Your task to perform on an android device: see sites visited before in the chrome app Image 0: 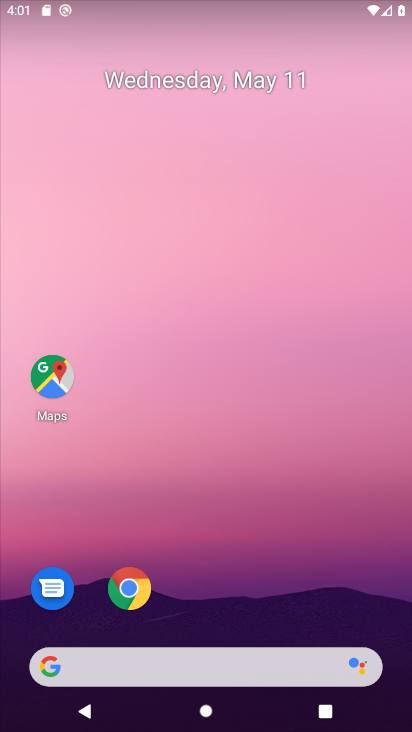
Step 0: drag from (202, 446) to (158, 166)
Your task to perform on an android device: see sites visited before in the chrome app Image 1: 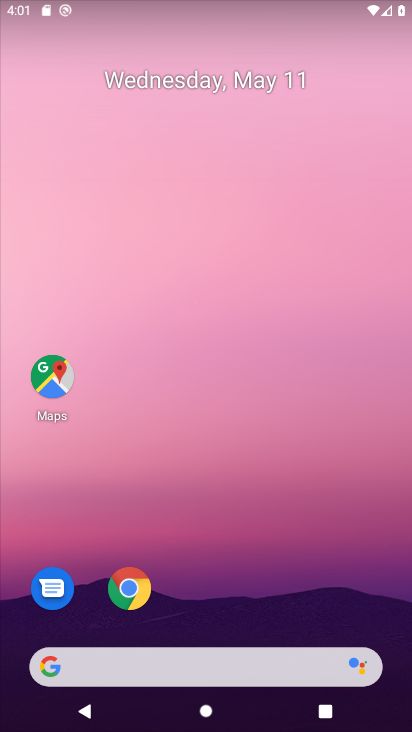
Step 1: drag from (278, 526) to (265, 56)
Your task to perform on an android device: see sites visited before in the chrome app Image 2: 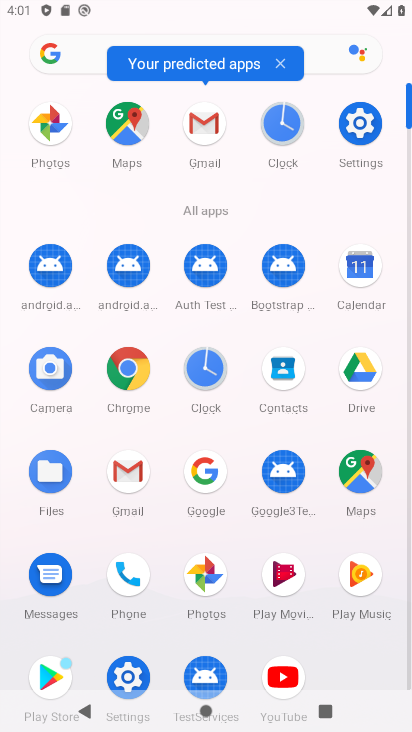
Step 2: click (135, 377)
Your task to perform on an android device: see sites visited before in the chrome app Image 3: 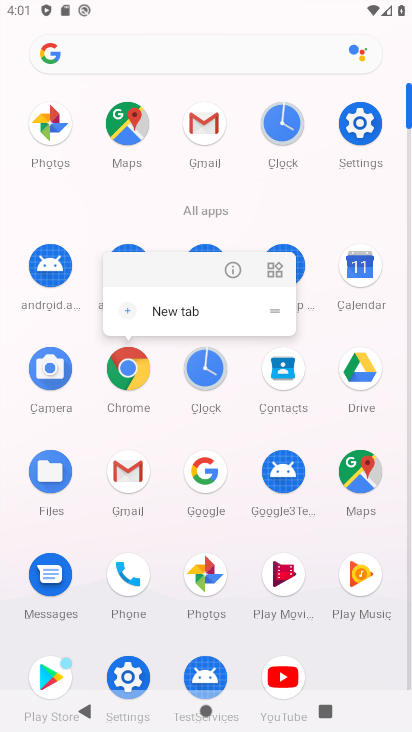
Step 3: click (135, 376)
Your task to perform on an android device: see sites visited before in the chrome app Image 4: 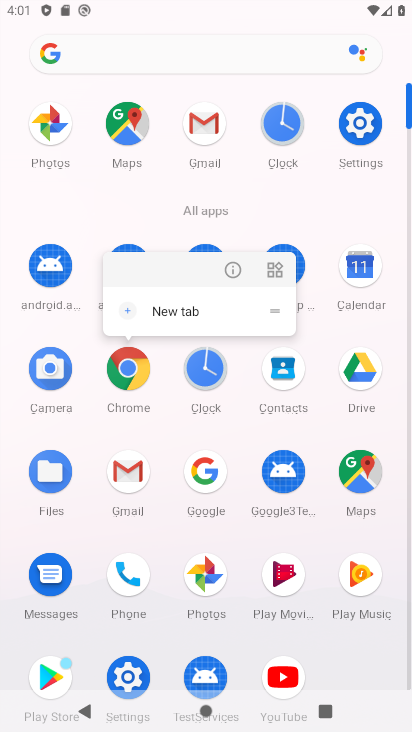
Step 4: click (135, 376)
Your task to perform on an android device: see sites visited before in the chrome app Image 5: 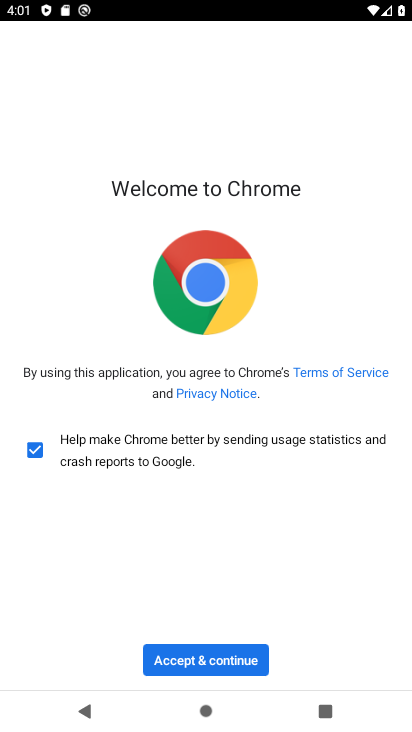
Step 5: click (163, 674)
Your task to perform on an android device: see sites visited before in the chrome app Image 6: 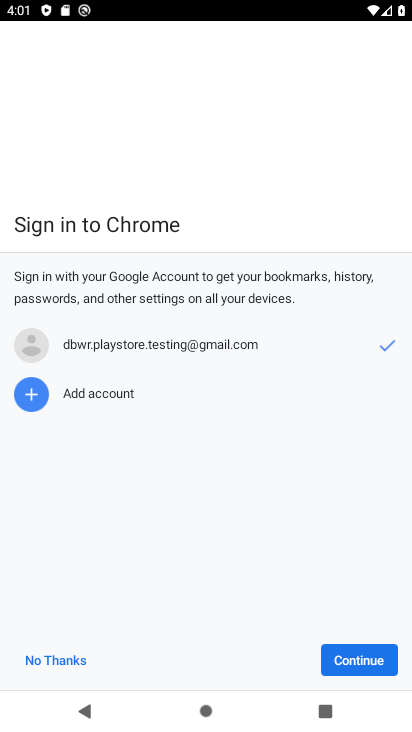
Step 6: click (65, 668)
Your task to perform on an android device: see sites visited before in the chrome app Image 7: 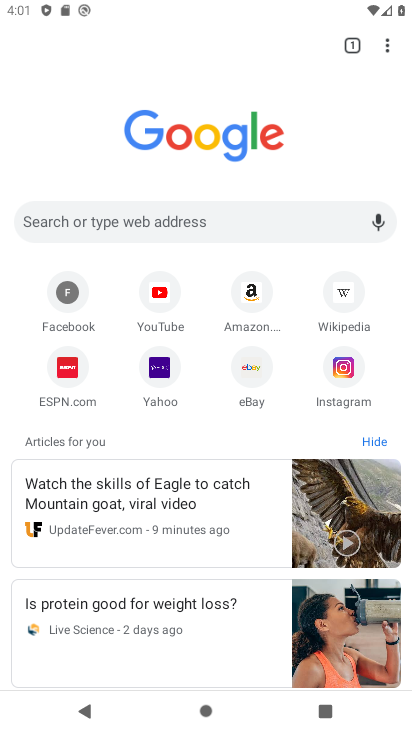
Step 7: drag from (393, 52) to (203, 214)
Your task to perform on an android device: see sites visited before in the chrome app Image 8: 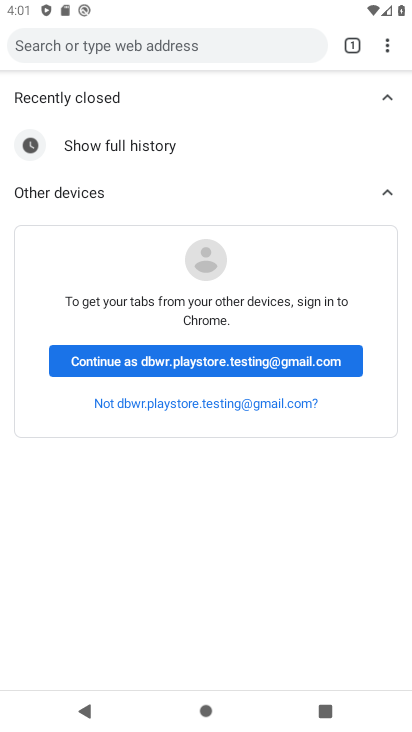
Step 8: click (189, 351)
Your task to perform on an android device: see sites visited before in the chrome app Image 9: 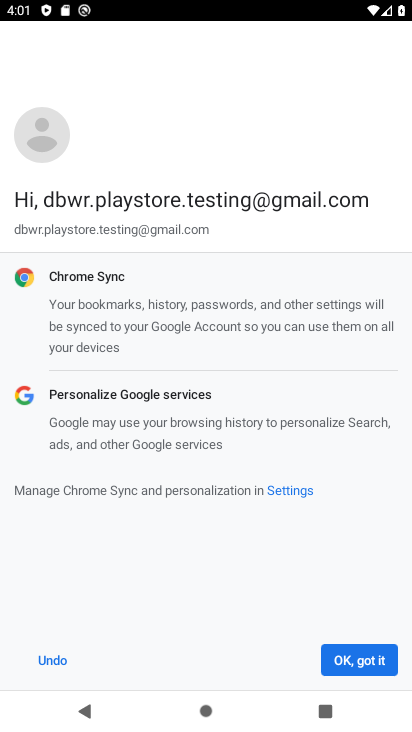
Step 9: click (340, 662)
Your task to perform on an android device: see sites visited before in the chrome app Image 10: 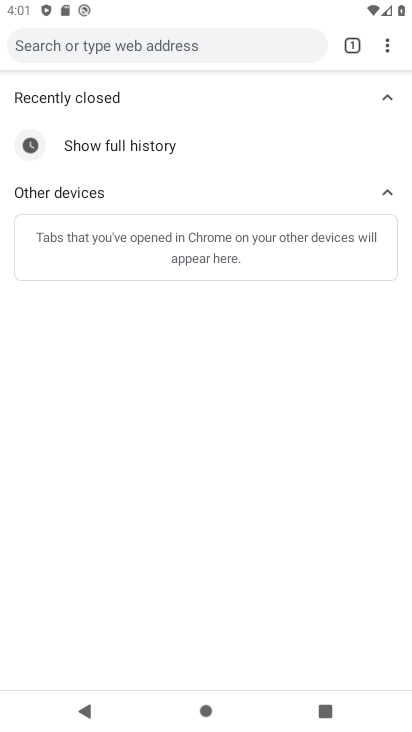
Step 10: task complete